Your task to perform on an android device: Open Android settings Image 0: 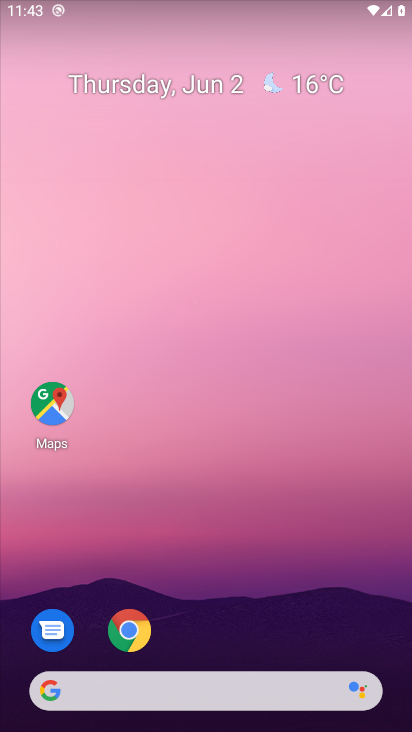
Step 0: drag from (212, 641) to (258, 118)
Your task to perform on an android device: Open Android settings Image 1: 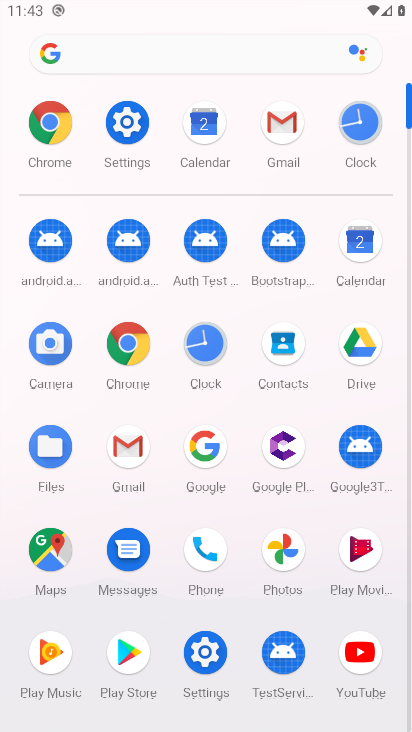
Step 1: click (135, 130)
Your task to perform on an android device: Open Android settings Image 2: 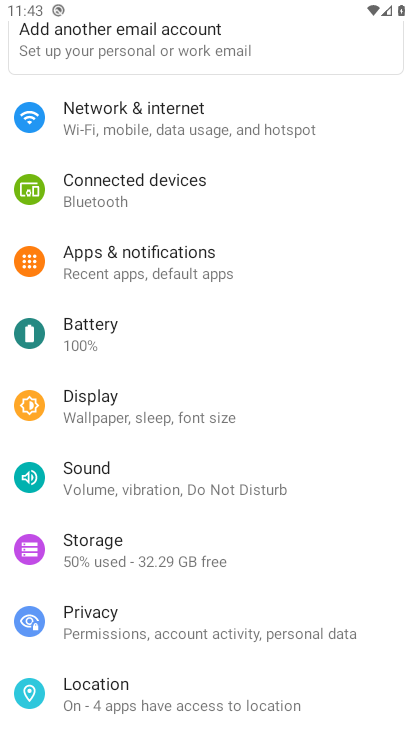
Step 2: drag from (166, 629) to (192, 337)
Your task to perform on an android device: Open Android settings Image 3: 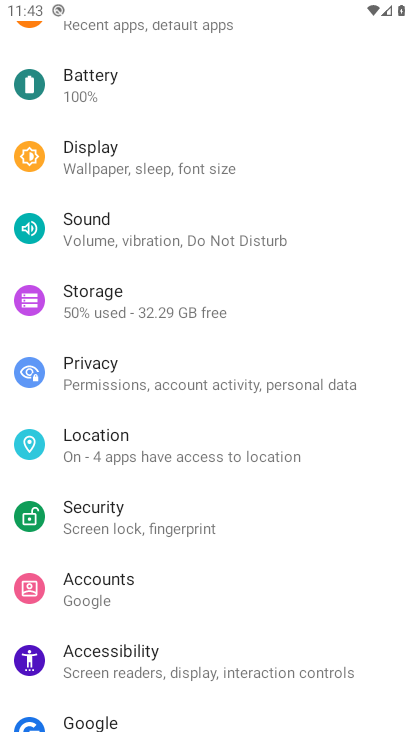
Step 3: drag from (201, 617) to (214, 420)
Your task to perform on an android device: Open Android settings Image 4: 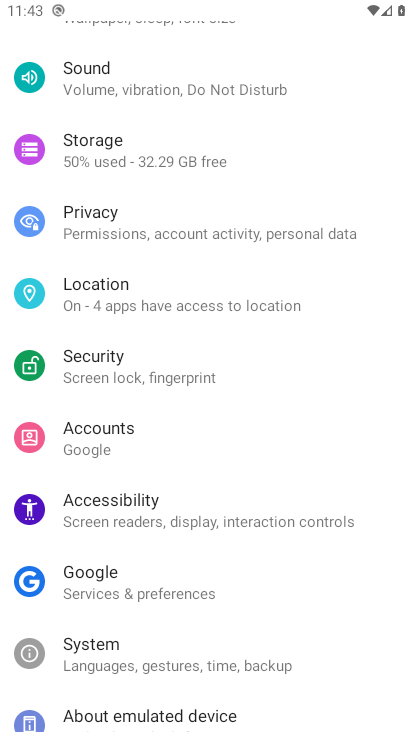
Step 4: drag from (175, 644) to (237, 313)
Your task to perform on an android device: Open Android settings Image 5: 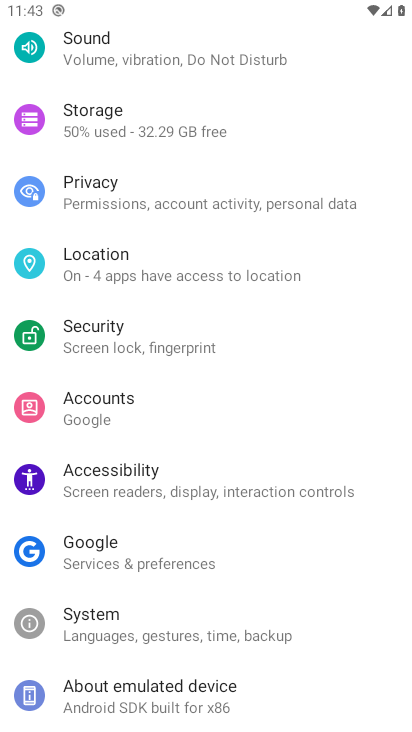
Step 5: click (152, 680)
Your task to perform on an android device: Open Android settings Image 6: 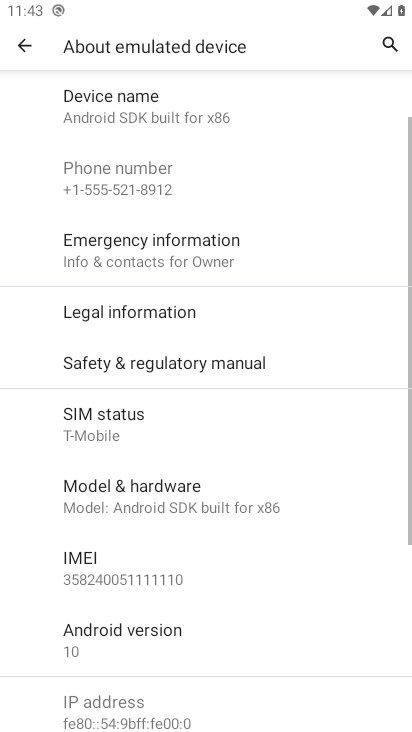
Step 6: click (160, 652)
Your task to perform on an android device: Open Android settings Image 7: 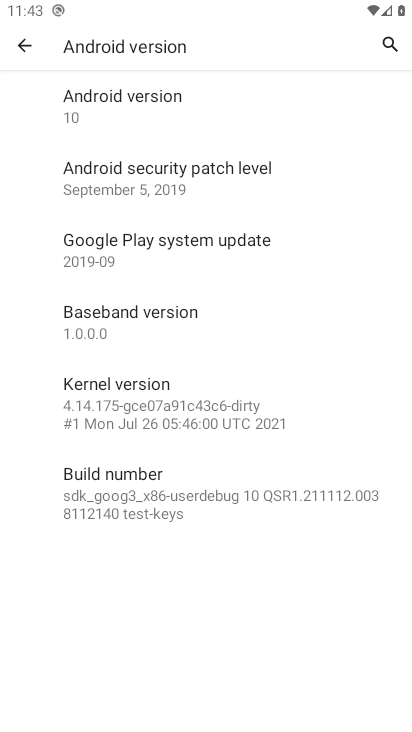
Step 7: task complete